Your task to perform on an android device: choose inbox layout in the gmail app Image 0: 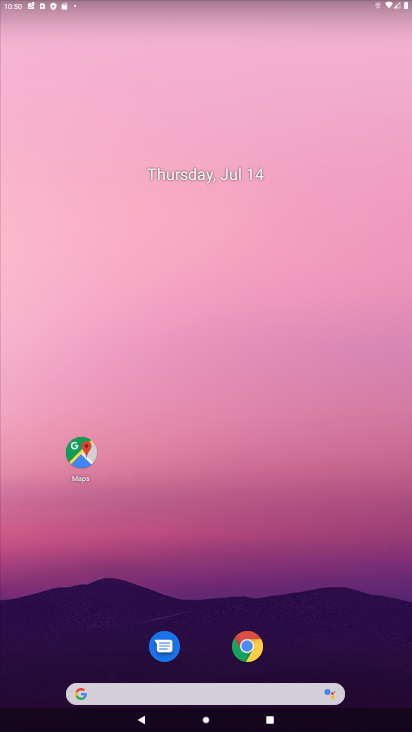
Step 0: drag from (204, 649) to (186, 235)
Your task to perform on an android device: choose inbox layout in the gmail app Image 1: 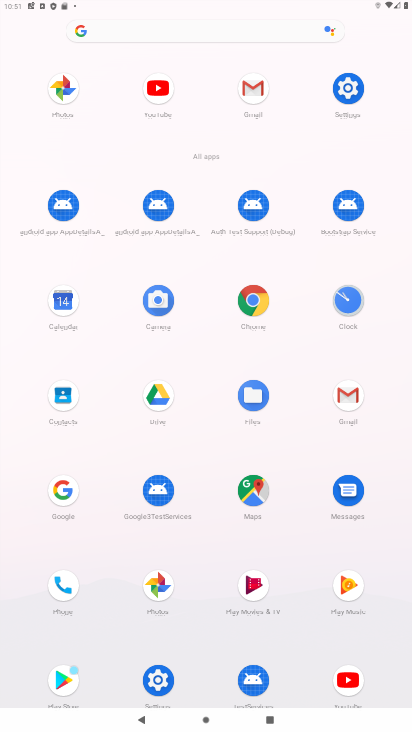
Step 1: click (244, 93)
Your task to perform on an android device: choose inbox layout in the gmail app Image 2: 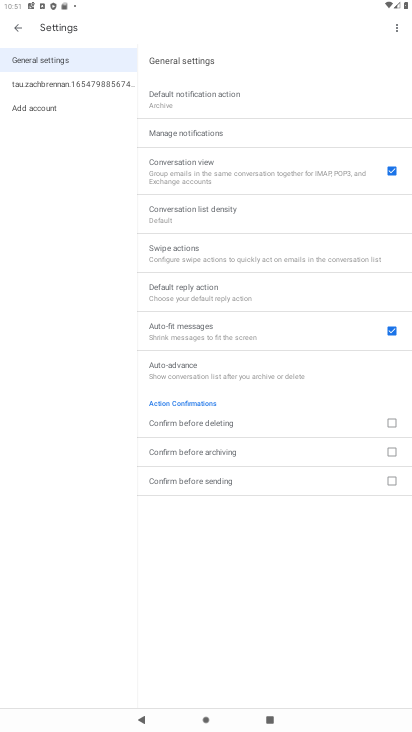
Step 2: click (72, 79)
Your task to perform on an android device: choose inbox layout in the gmail app Image 3: 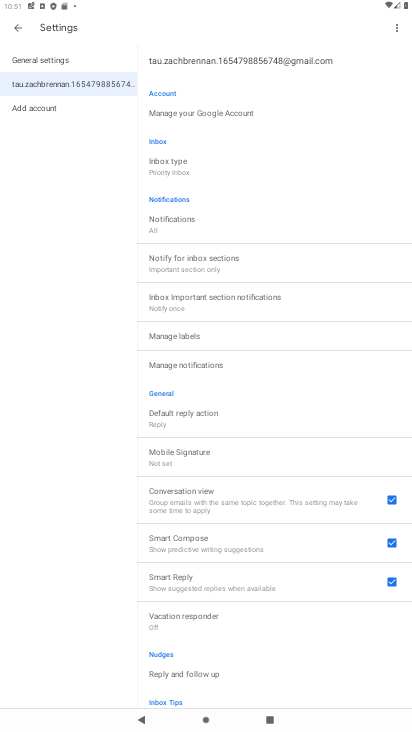
Step 3: click (193, 164)
Your task to perform on an android device: choose inbox layout in the gmail app Image 4: 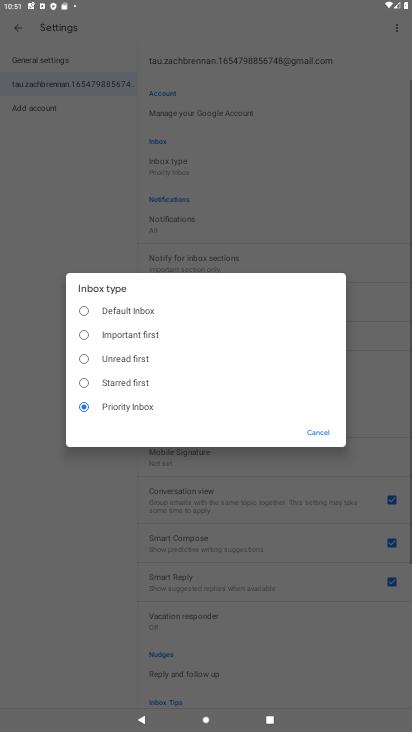
Step 4: click (102, 313)
Your task to perform on an android device: choose inbox layout in the gmail app Image 5: 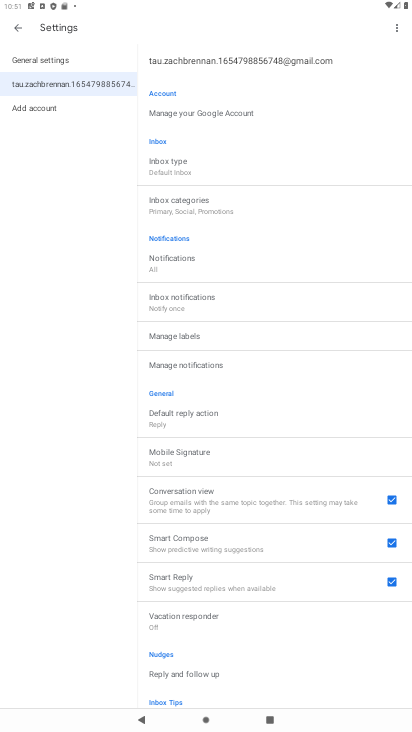
Step 5: task complete